Your task to perform on an android device: find photos in the google photos app Image 0: 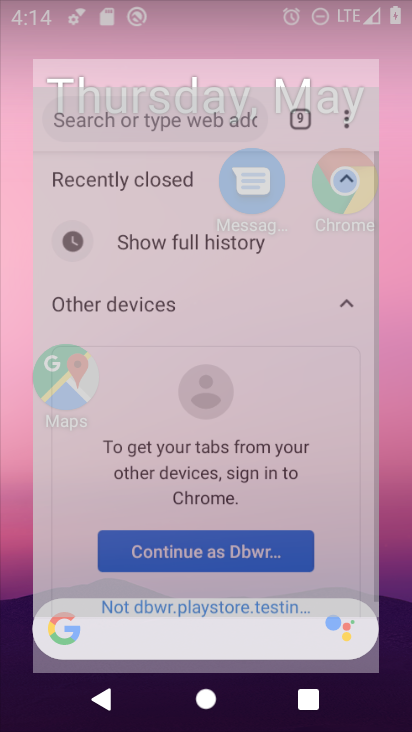
Step 0: drag from (337, 573) to (343, 2)
Your task to perform on an android device: find photos in the google photos app Image 1: 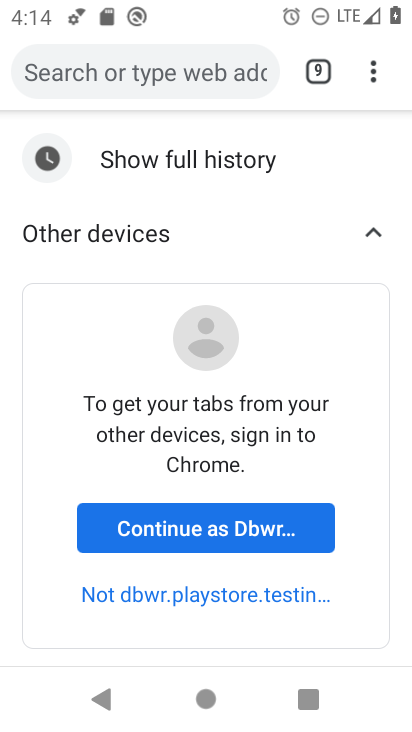
Step 1: press home button
Your task to perform on an android device: find photos in the google photos app Image 2: 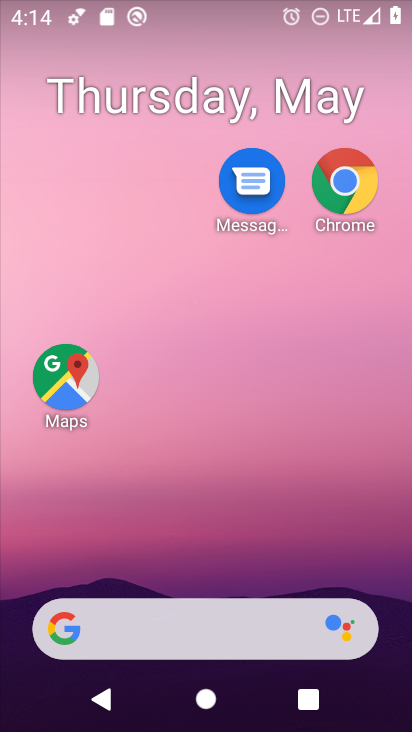
Step 2: drag from (282, 626) to (318, 6)
Your task to perform on an android device: find photos in the google photos app Image 3: 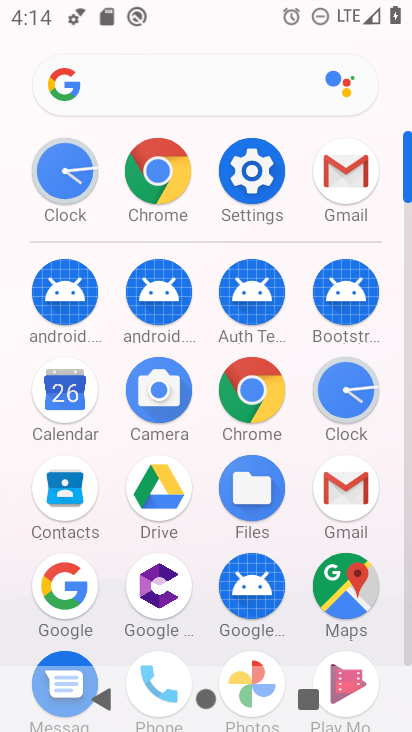
Step 3: drag from (278, 643) to (336, 253)
Your task to perform on an android device: find photos in the google photos app Image 4: 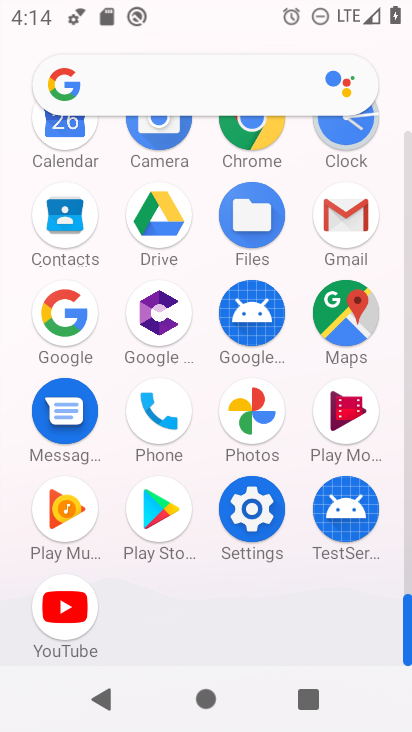
Step 4: click (244, 403)
Your task to perform on an android device: find photos in the google photos app Image 5: 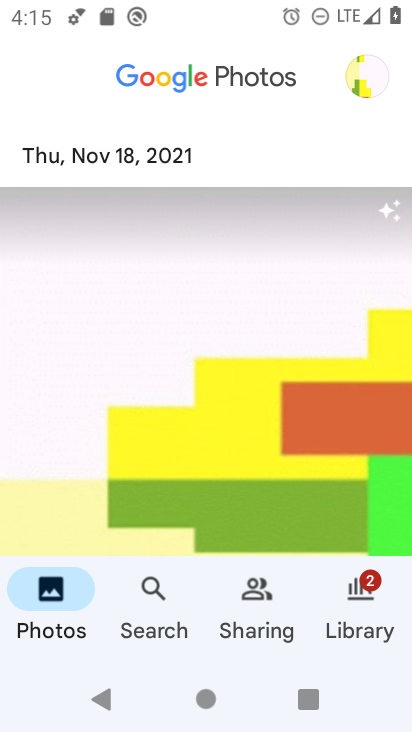
Step 5: task complete